Your task to perform on an android device: open app "LinkedIn" (install if not already installed) Image 0: 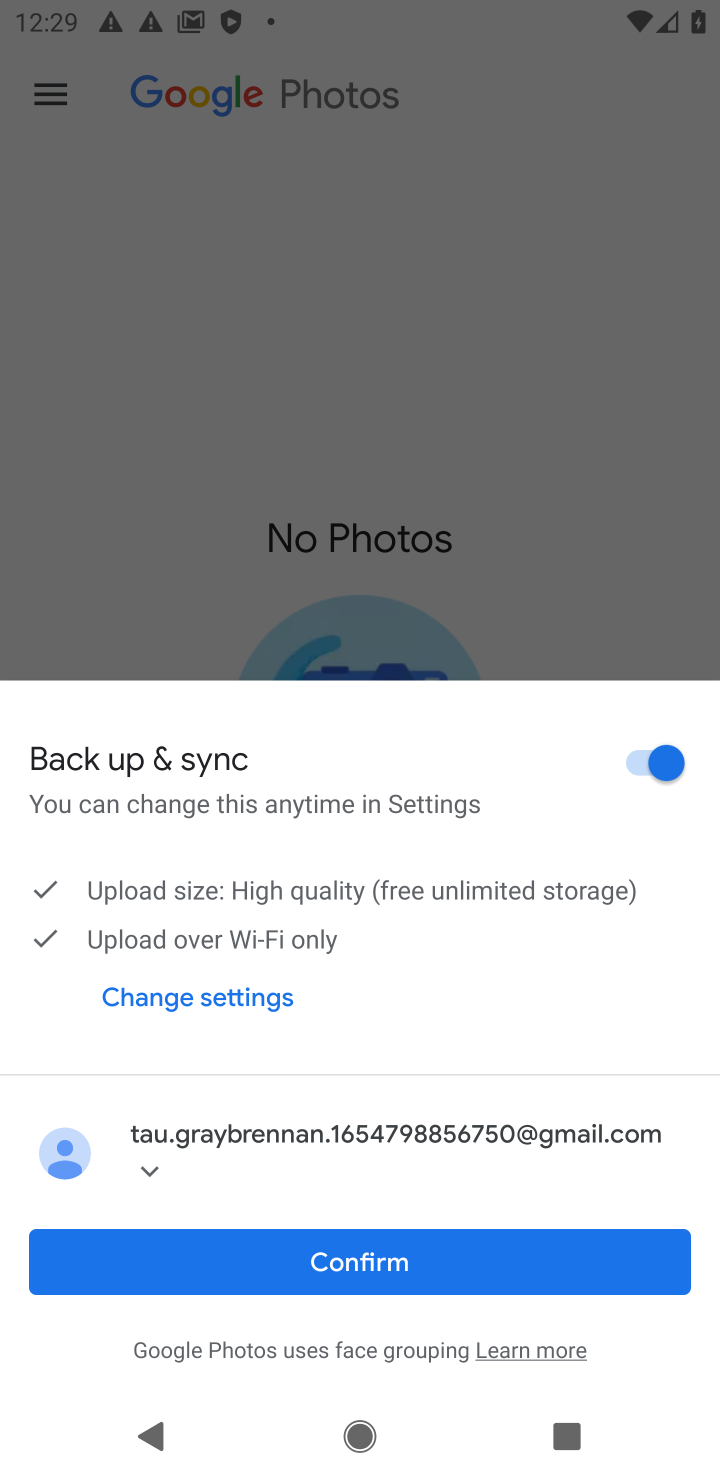
Step 0: press home button
Your task to perform on an android device: open app "LinkedIn" (install if not already installed) Image 1: 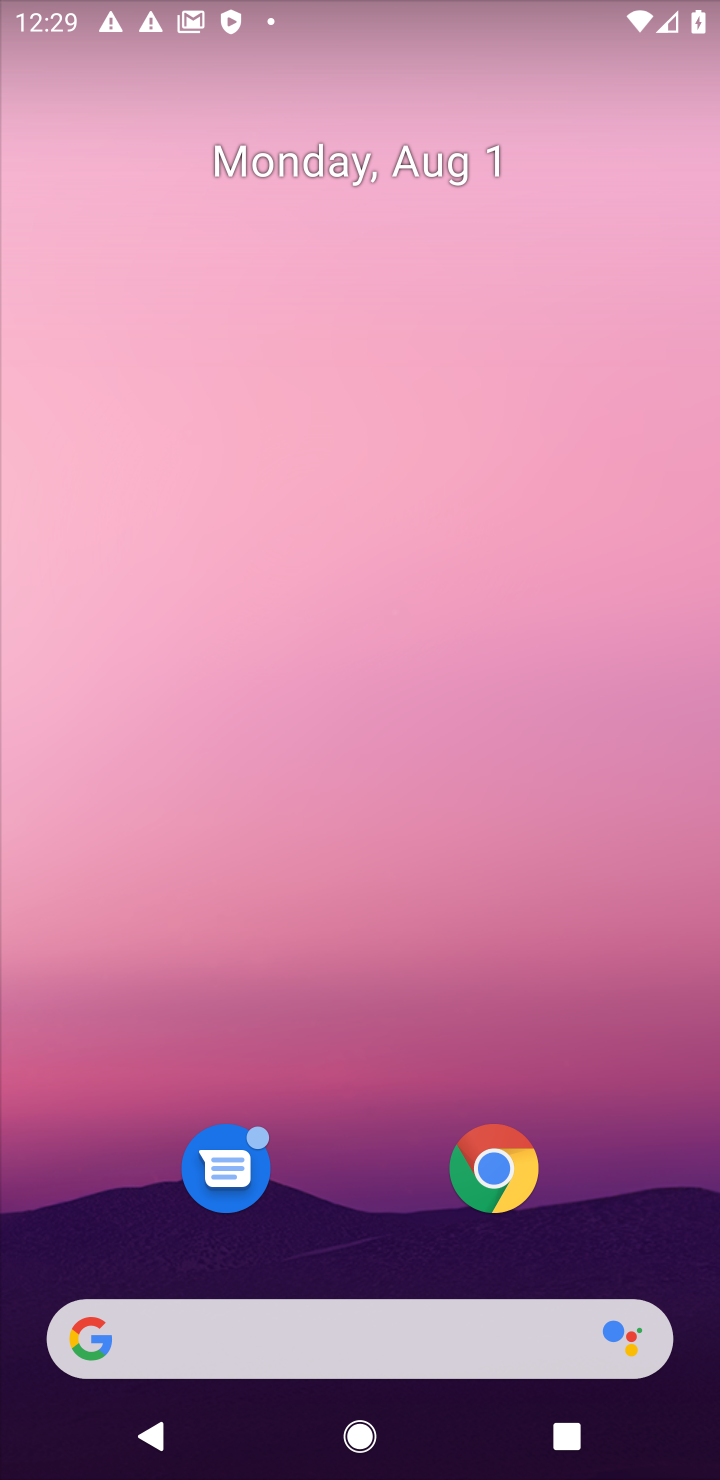
Step 1: drag from (403, 1230) to (460, 145)
Your task to perform on an android device: open app "LinkedIn" (install if not already installed) Image 2: 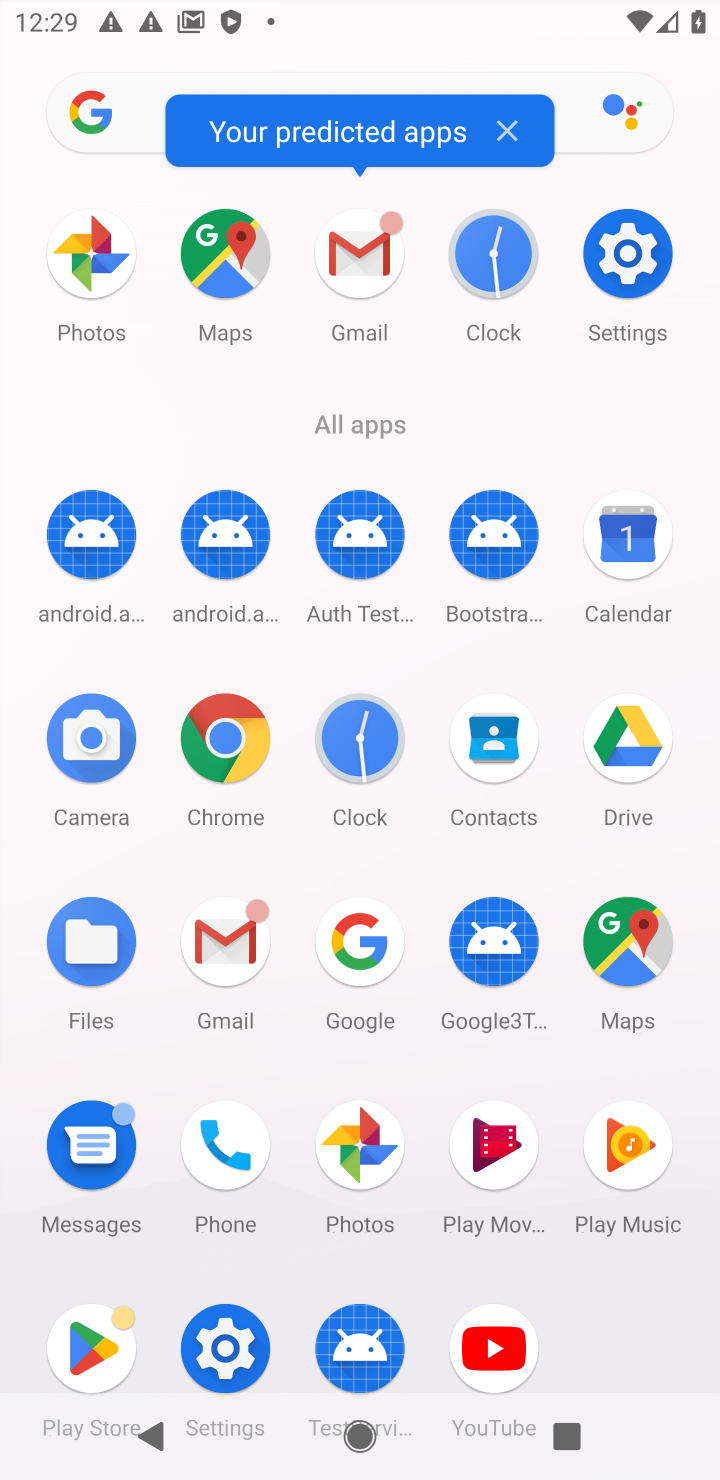
Step 2: click (103, 1384)
Your task to perform on an android device: open app "LinkedIn" (install if not already installed) Image 3: 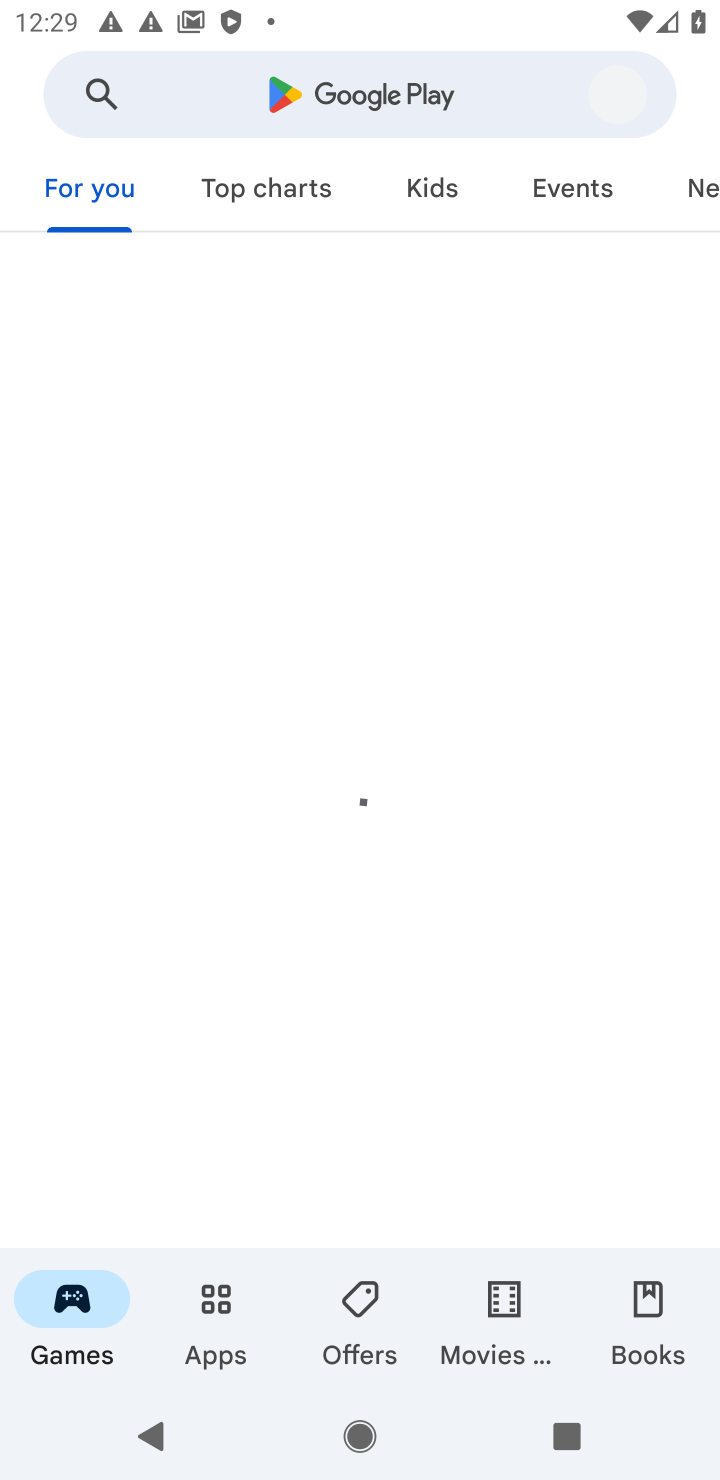
Step 3: click (404, 98)
Your task to perform on an android device: open app "LinkedIn" (install if not already installed) Image 4: 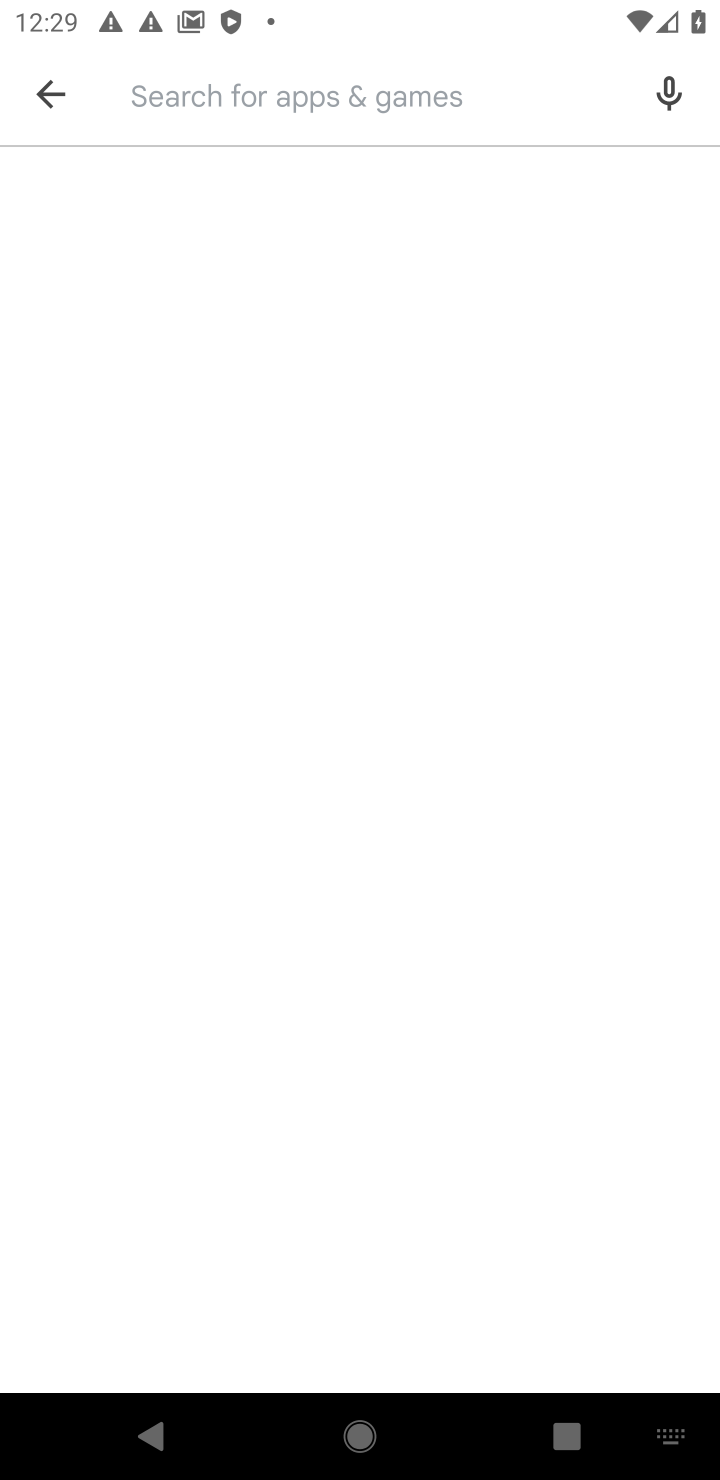
Step 4: type "Linkedln"
Your task to perform on an android device: open app "LinkedIn" (install if not already installed) Image 5: 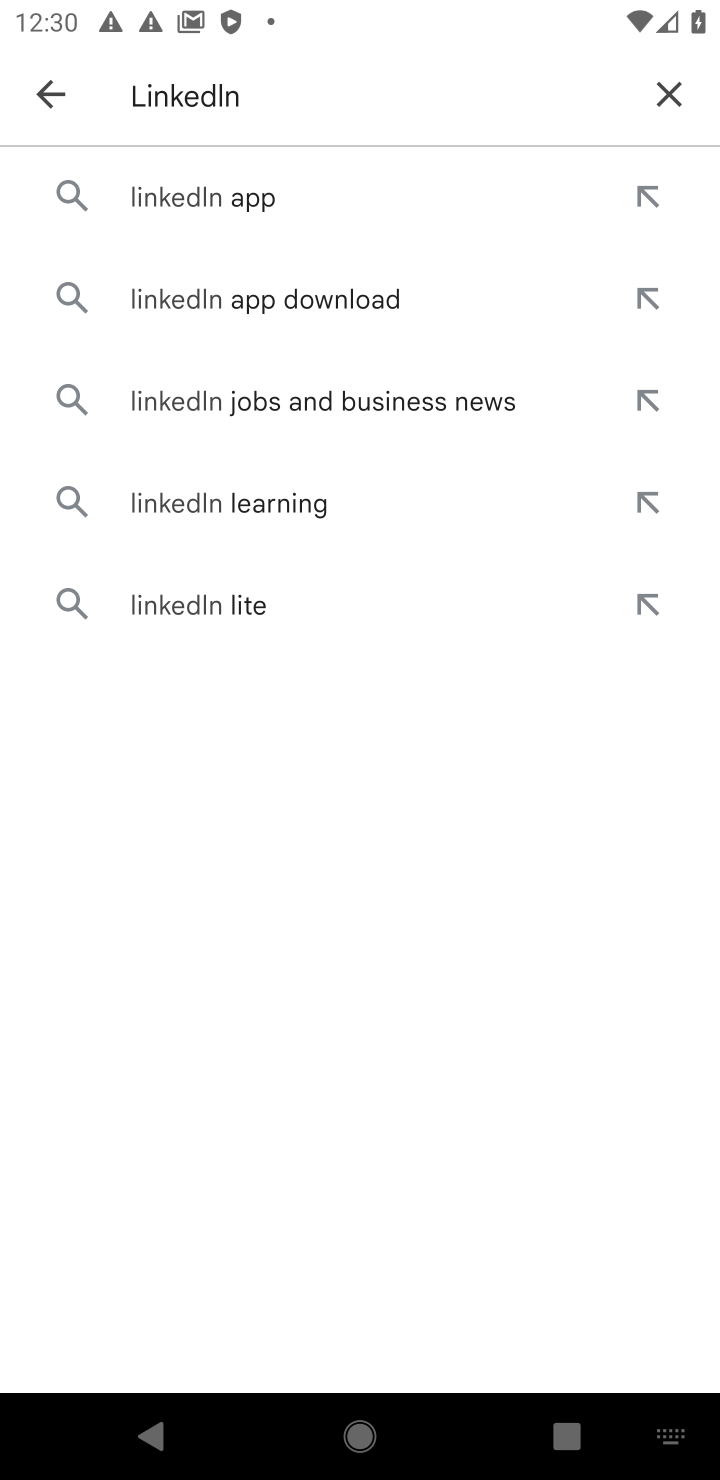
Step 5: press enter
Your task to perform on an android device: open app "LinkedIn" (install if not already installed) Image 6: 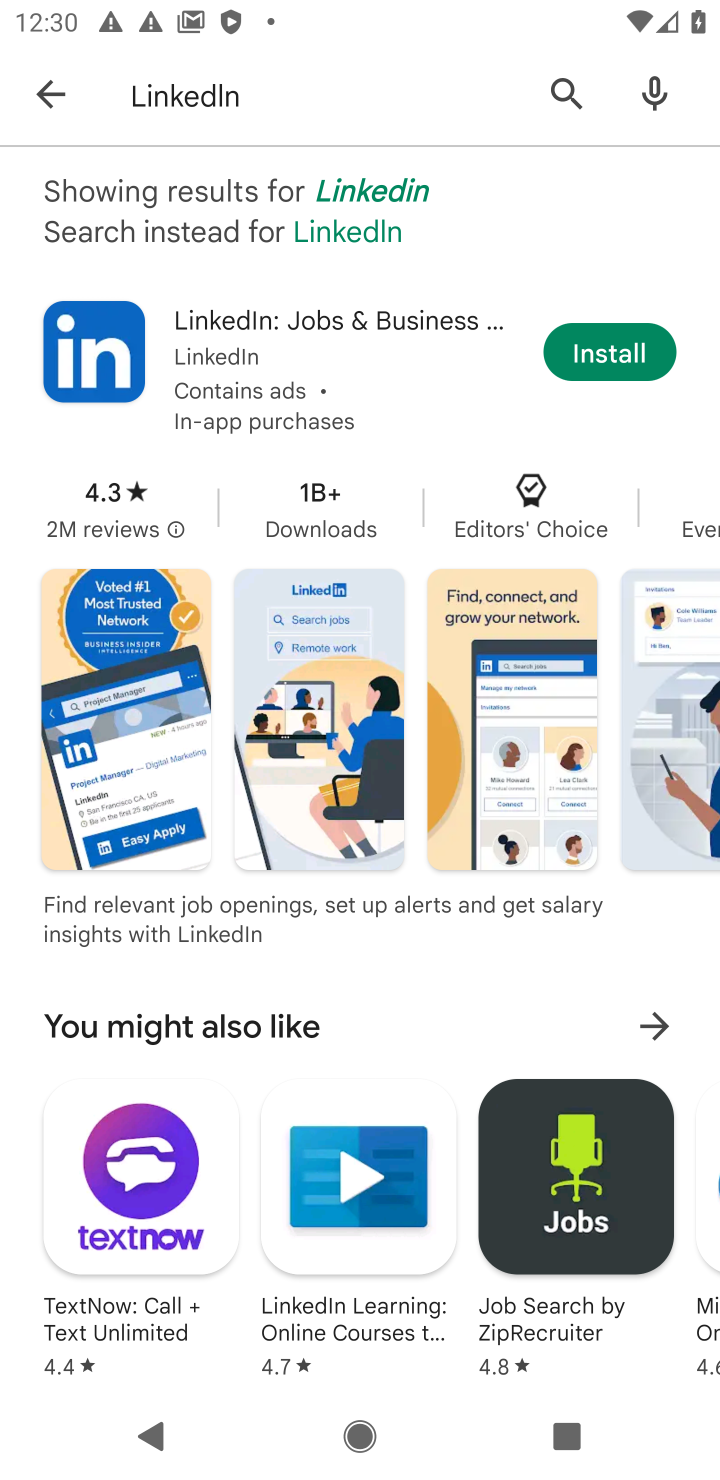
Step 6: click (616, 338)
Your task to perform on an android device: open app "LinkedIn" (install if not already installed) Image 7: 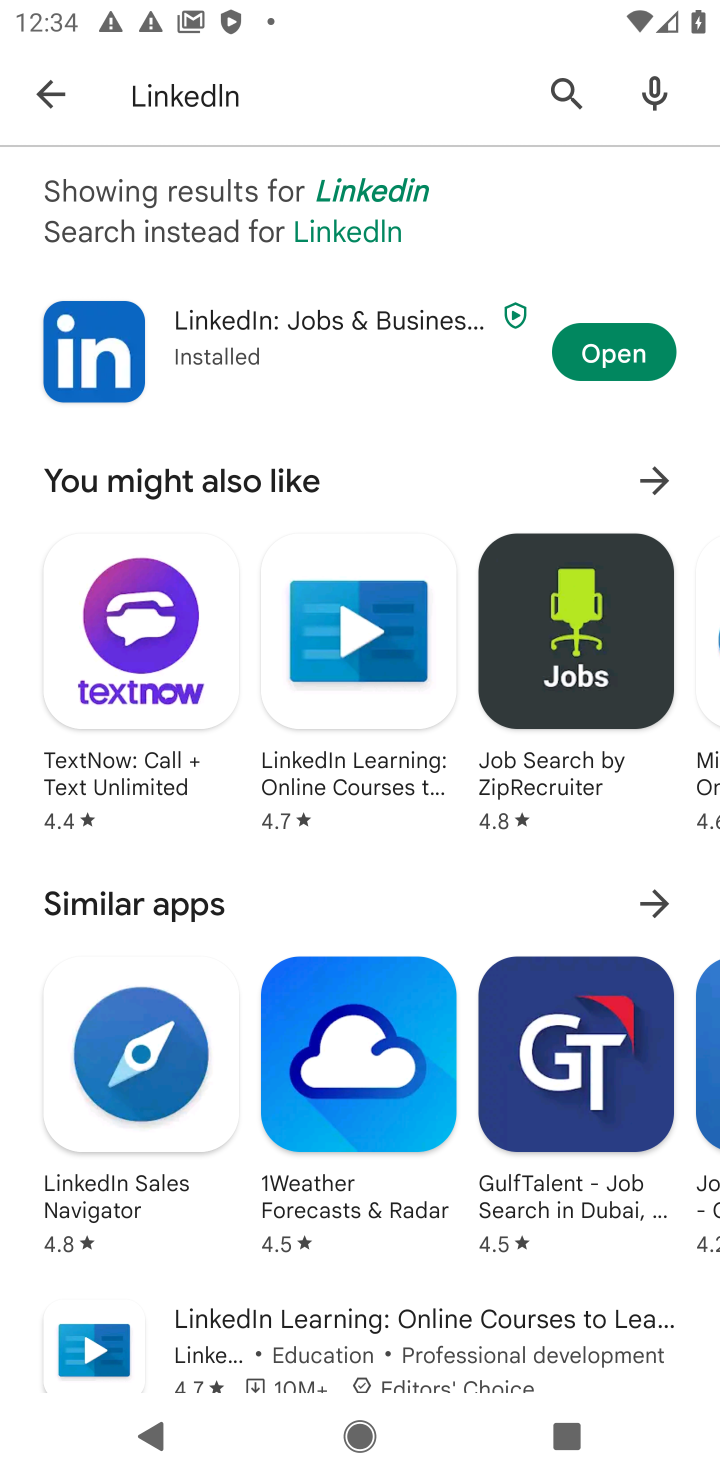
Step 7: click (638, 348)
Your task to perform on an android device: open app "LinkedIn" (install if not already installed) Image 8: 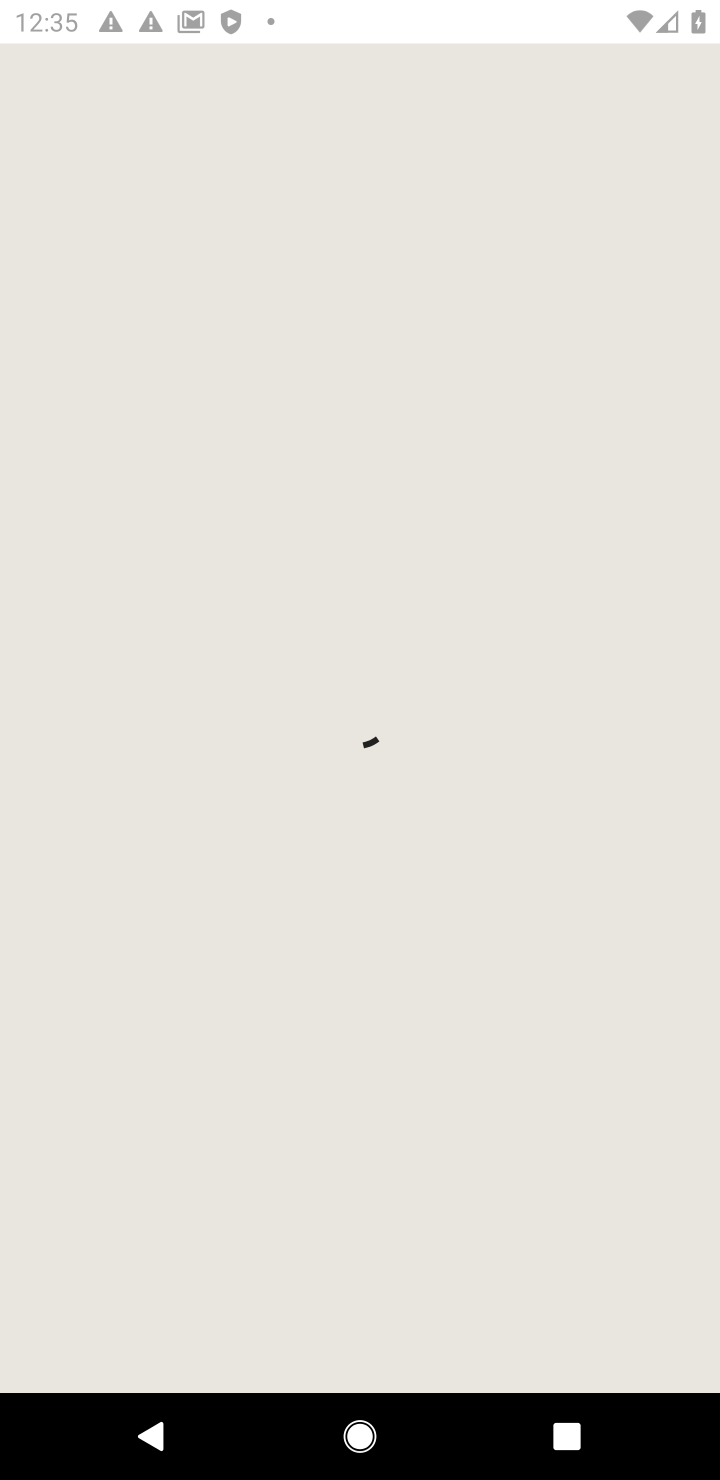
Step 8: task complete